Your task to perform on an android device: Show me recent news Image 0: 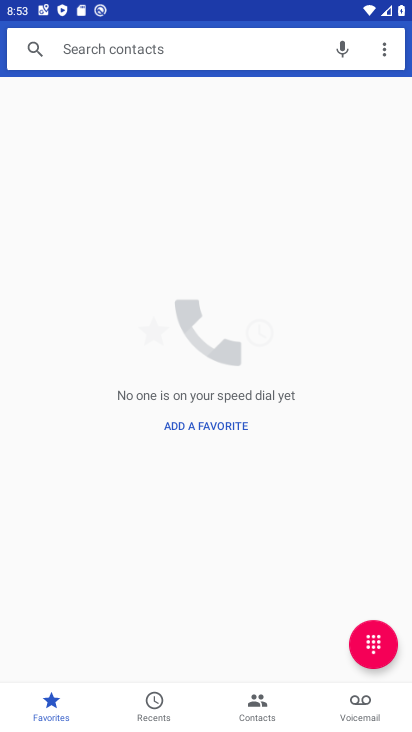
Step 0: drag from (389, 712) to (407, 655)
Your task to perform on an android device: Show me recent news Image 1: 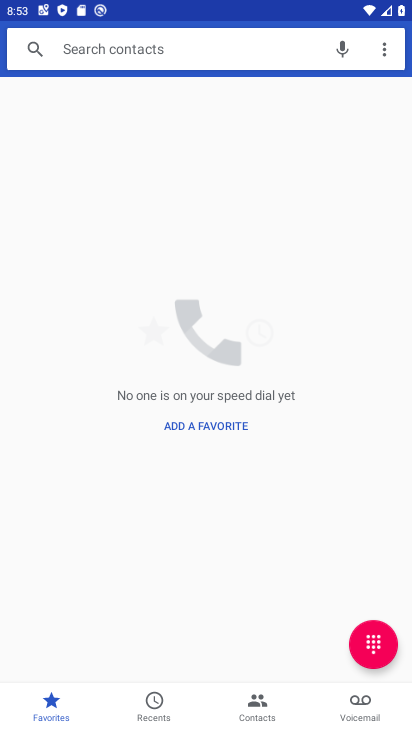
Step 1: press enter
Your task to perform on an android device: Show me recent news Image 2: 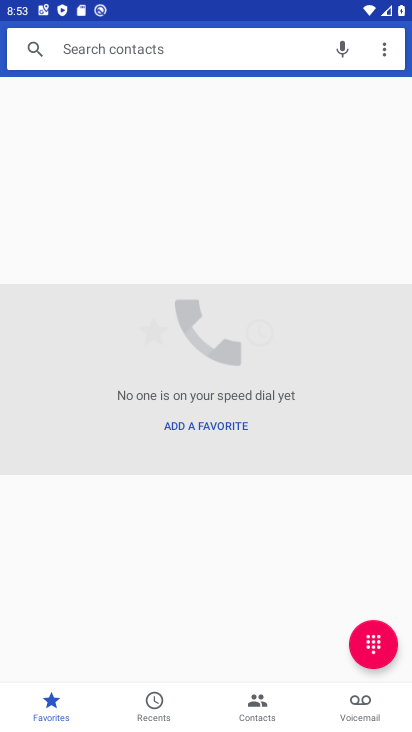
Step 2: press home button
Your task to perform on an android device: Show me recent news Image 3: 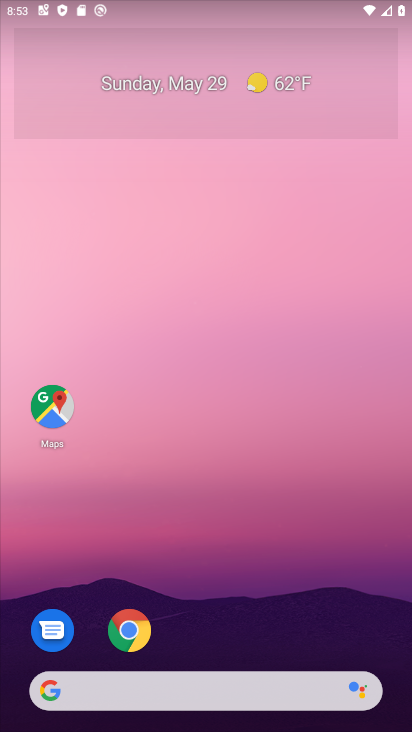
Step 3: drag from (401, 718) to (283, 97)
Your task to perform on an android device: Show me recent news Image 4: 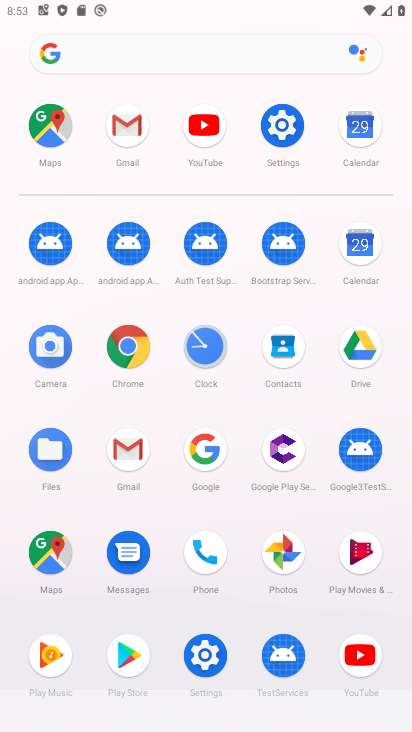
Step 4: click (271, 540)
Your task to perform on an android device: Show me recent news Image 5: 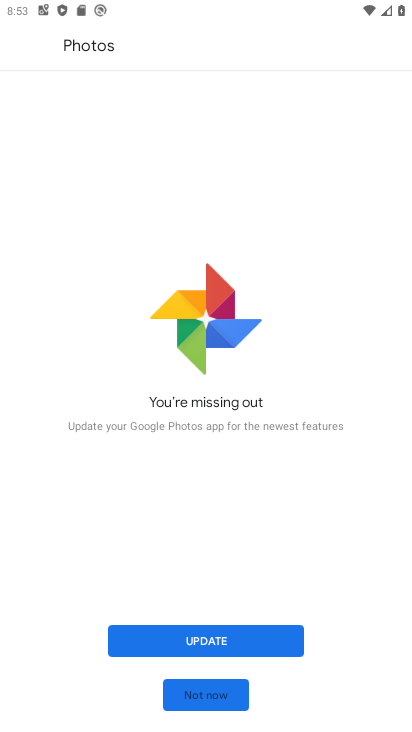
Step 5: click (230, 629)
Your task to perform on an android device: Show me recent news Image 6: 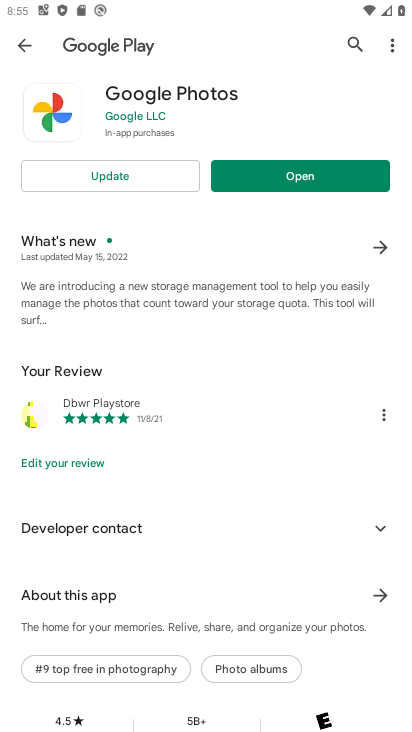
Step 6: click (162, 170)
Your task to perform on an android device: Show me recent news Image 7: 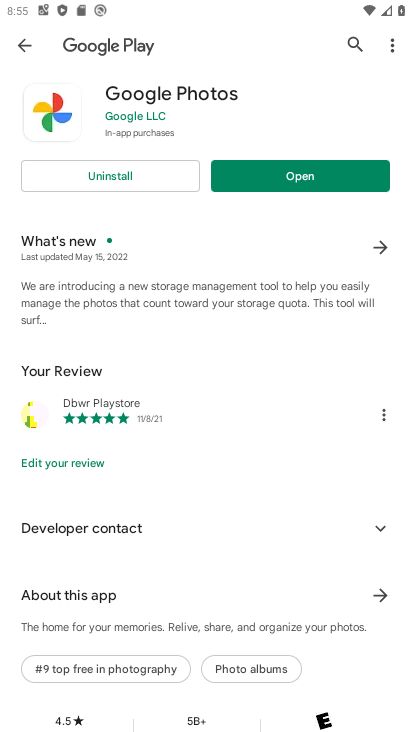
Step 7: click (307, 180)
Your task to perform on an android device: Show me recent news Image 8: 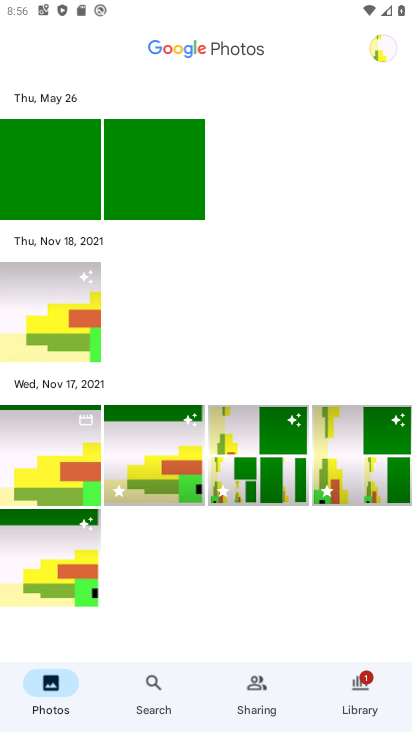
Step 8: click (51, 334)
Your task to perform on an android device: Show me recent news Image 9: 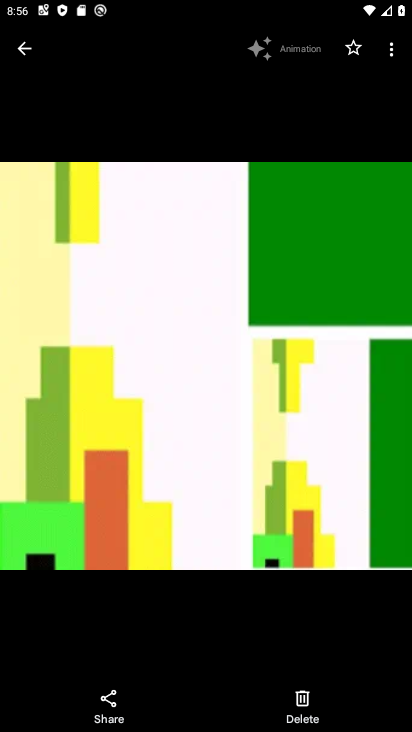
Step 9: task complete